Your task to perform on an android device: Open Chrome and go to settings Image 0: 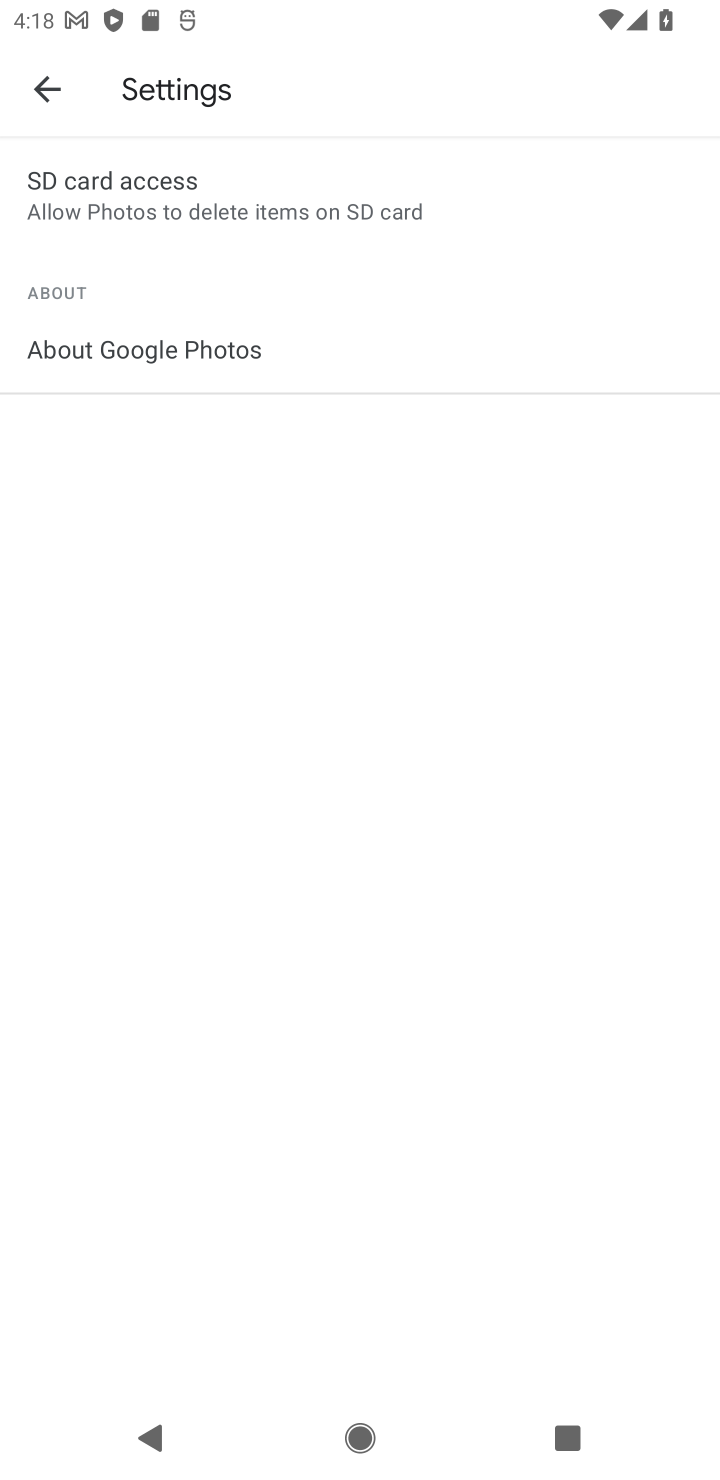
Step 0: press home button
Your task to perform on an android device: Open Chrome and go to settings Image 1: 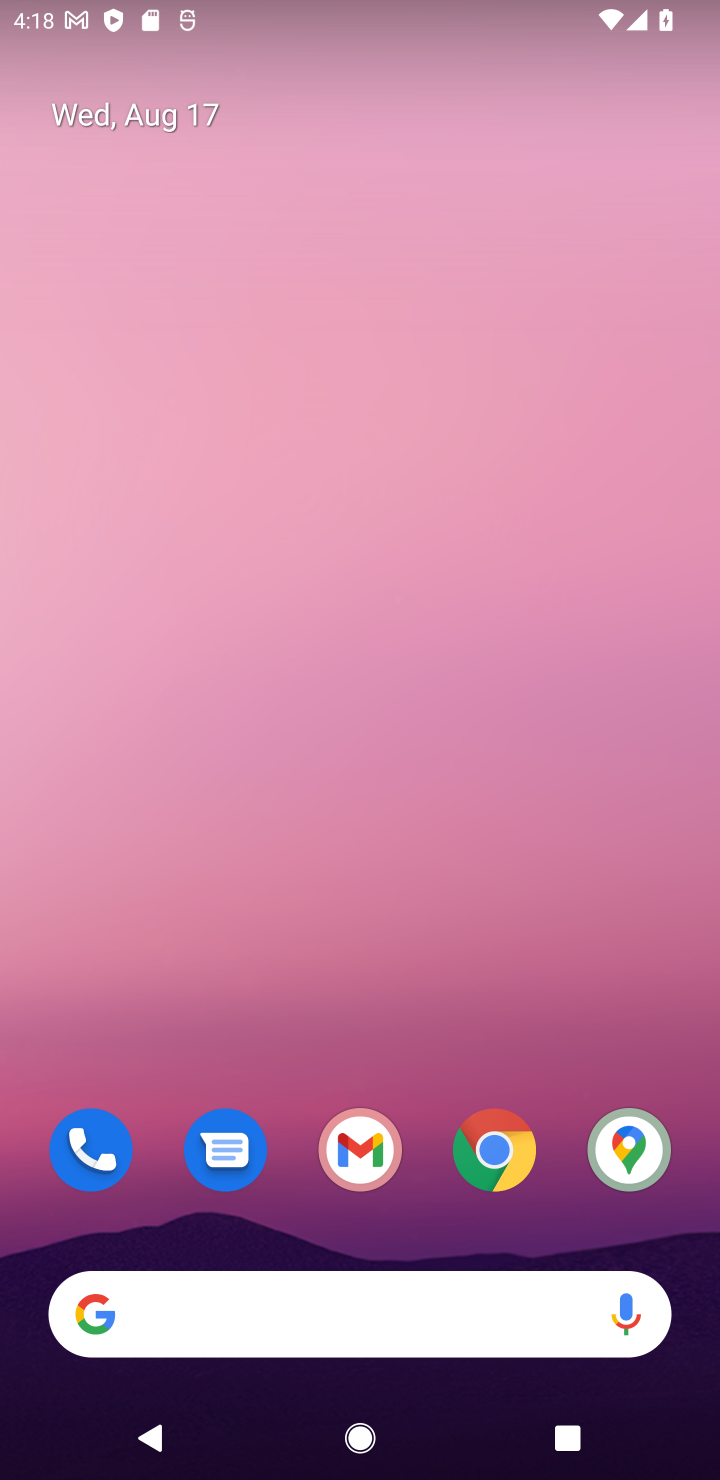
Step 1: drag from (692, 1253) to (485, 72)
Your task to perform on an android device: Open Chrome and go to settings Image 2: 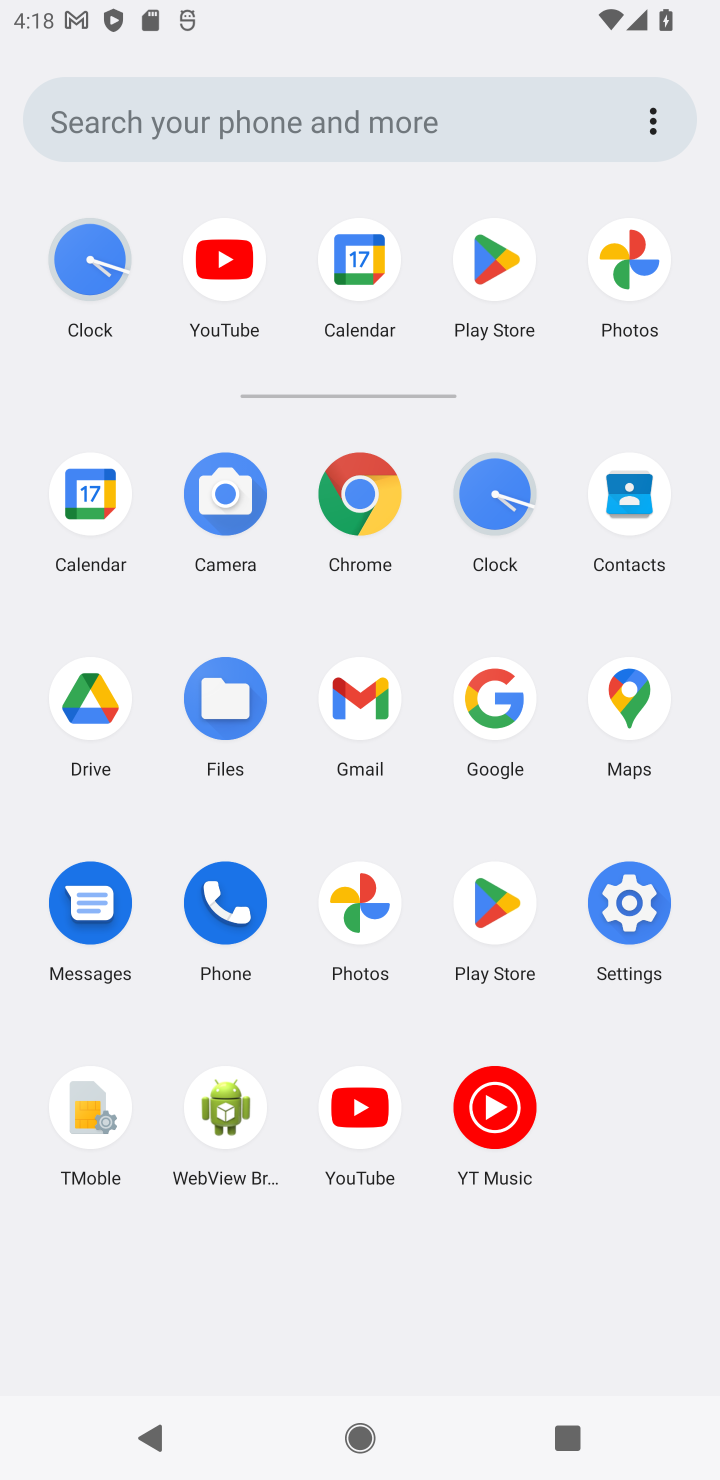
Step 2: click (366, 514)
Your task to perform on an android device: Open Chrome and go to settings Image 3: 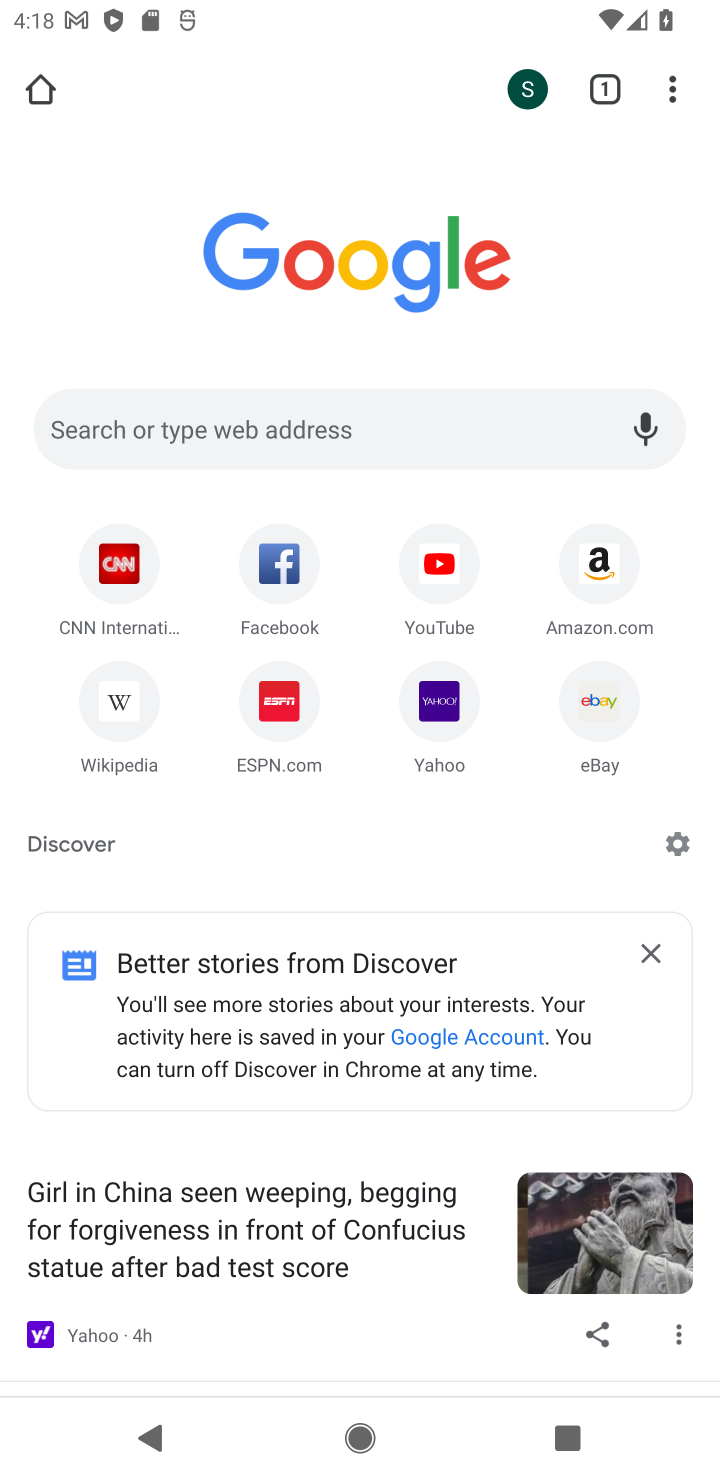
Step 3: click (672, 84)
Your task to perform on an android device: Open Chrome and go to settings Image 4: 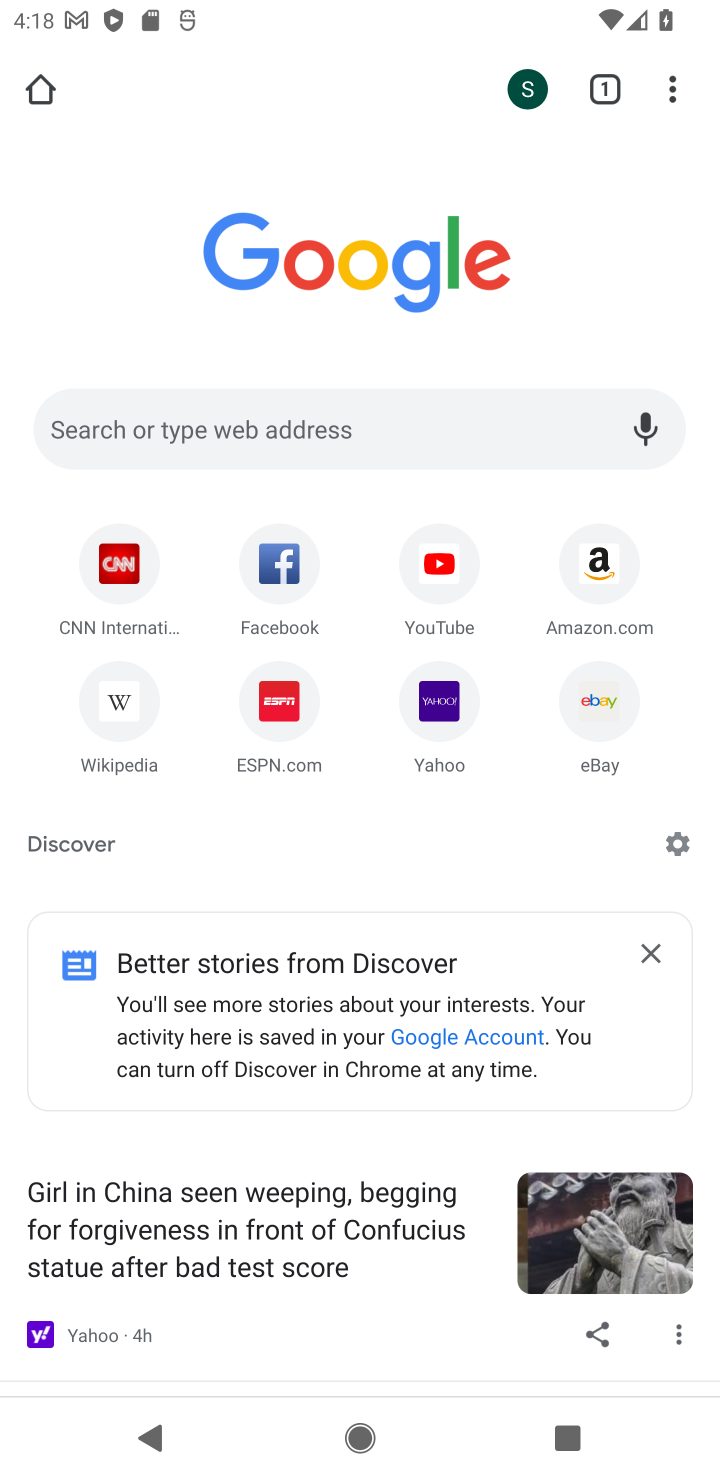
Step 4: click (672, 84)
Your task to perform on an android device: Open Chrome and go to settings Image 5: 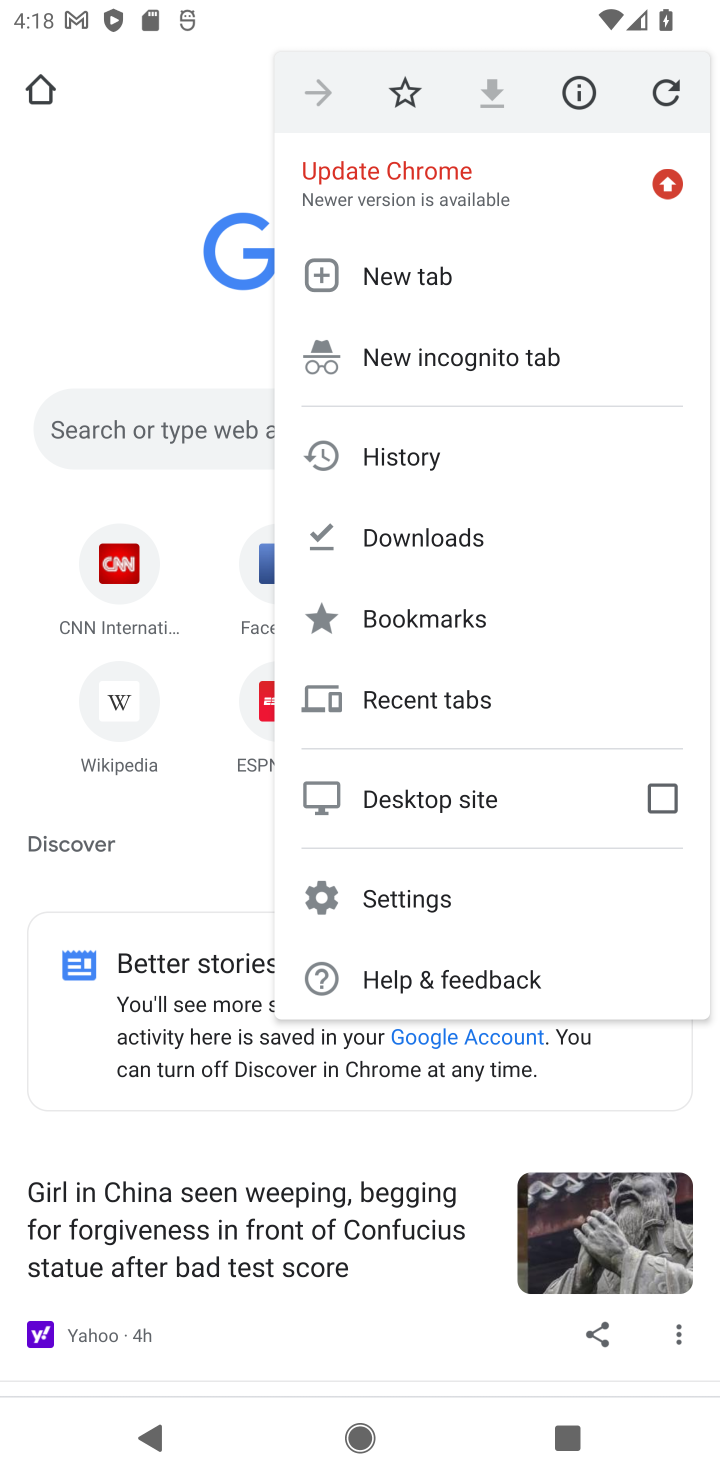
Step 5: click (414, 910)
Your task to perform on an android device: Open Chrome and go to settings Image 6: 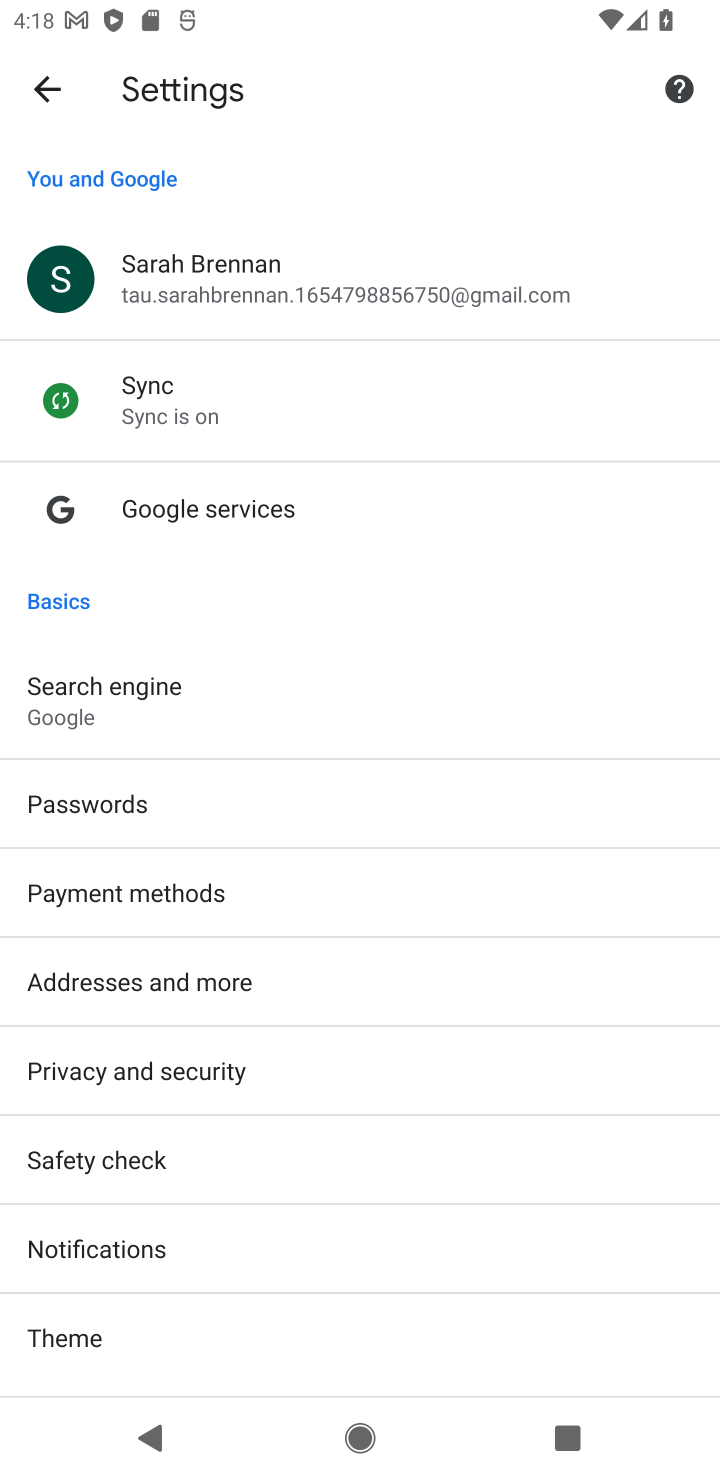
Step 6: task complete